Your task to perform on an android device: Search for a new nail polish Image 0: 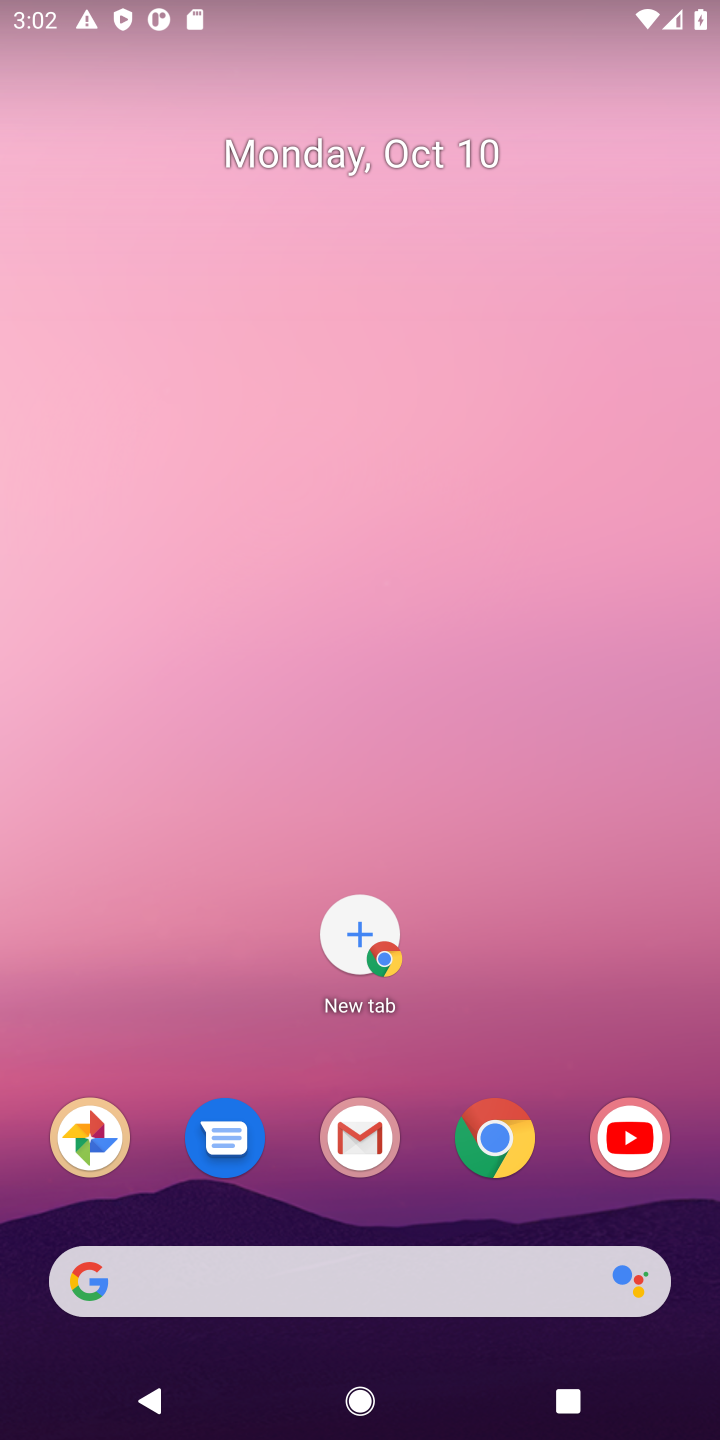
Step 0: click (498, 1157)
Your task to perform on an android device: Search for a new nail polish Image 1: 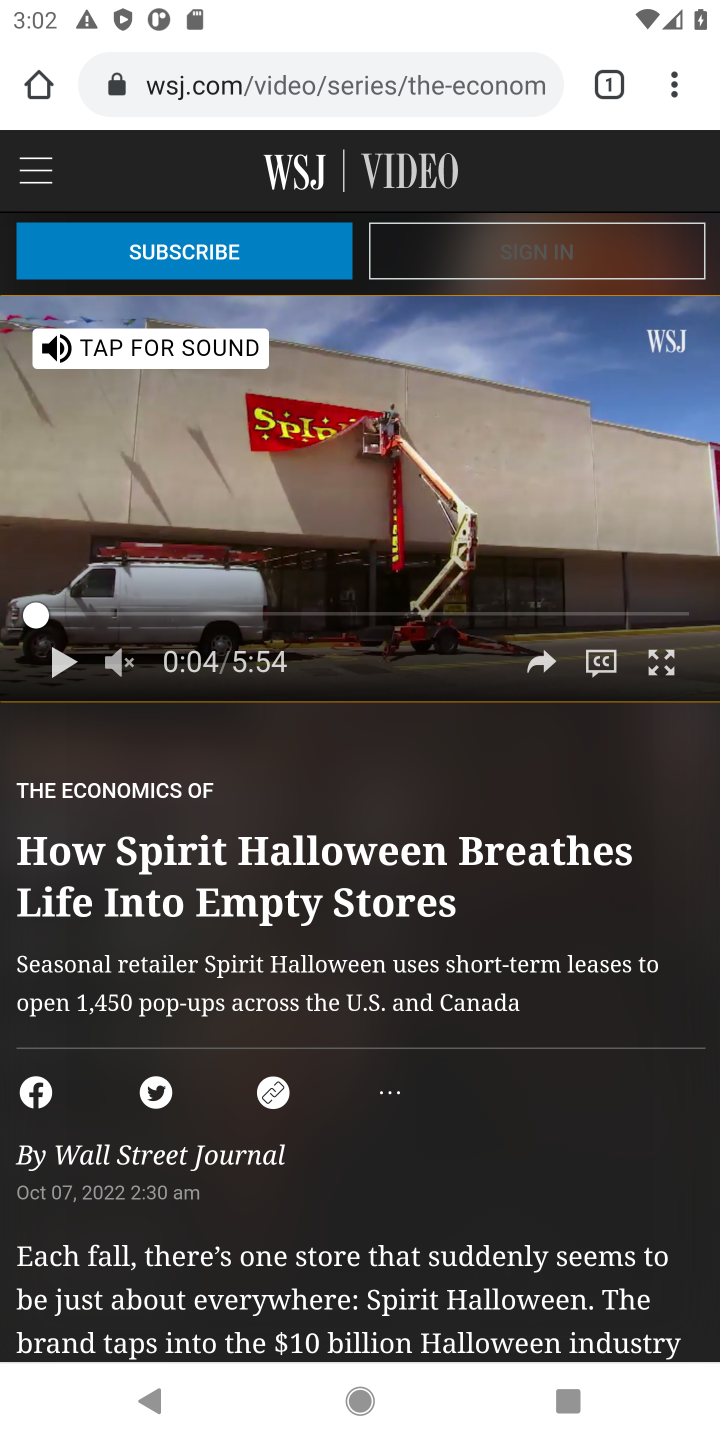
Step 1: click (605, 95)
Your task to perform on an android device: Search for a new nail polish Image 2: 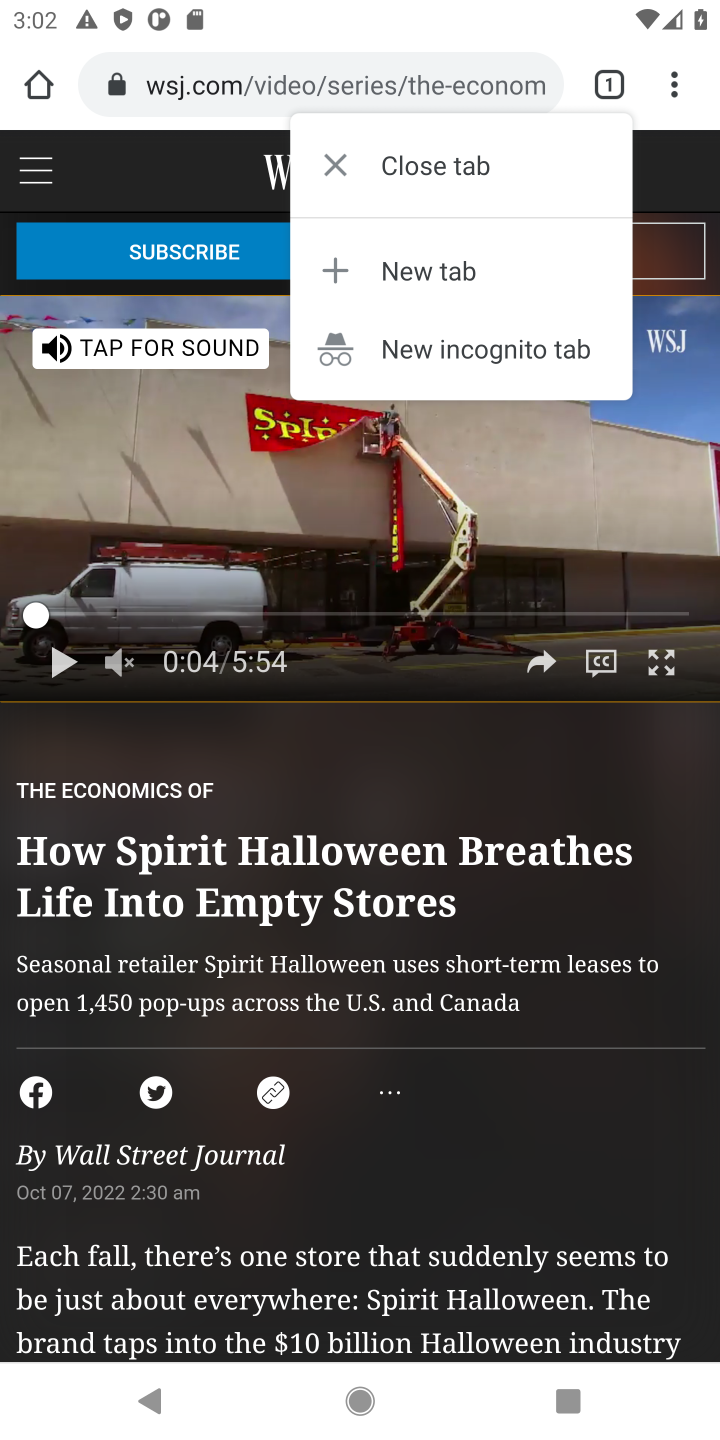
Step 2: click (463, 165)
Your task to perform on an android device: Search for a new nail polish Image 3: 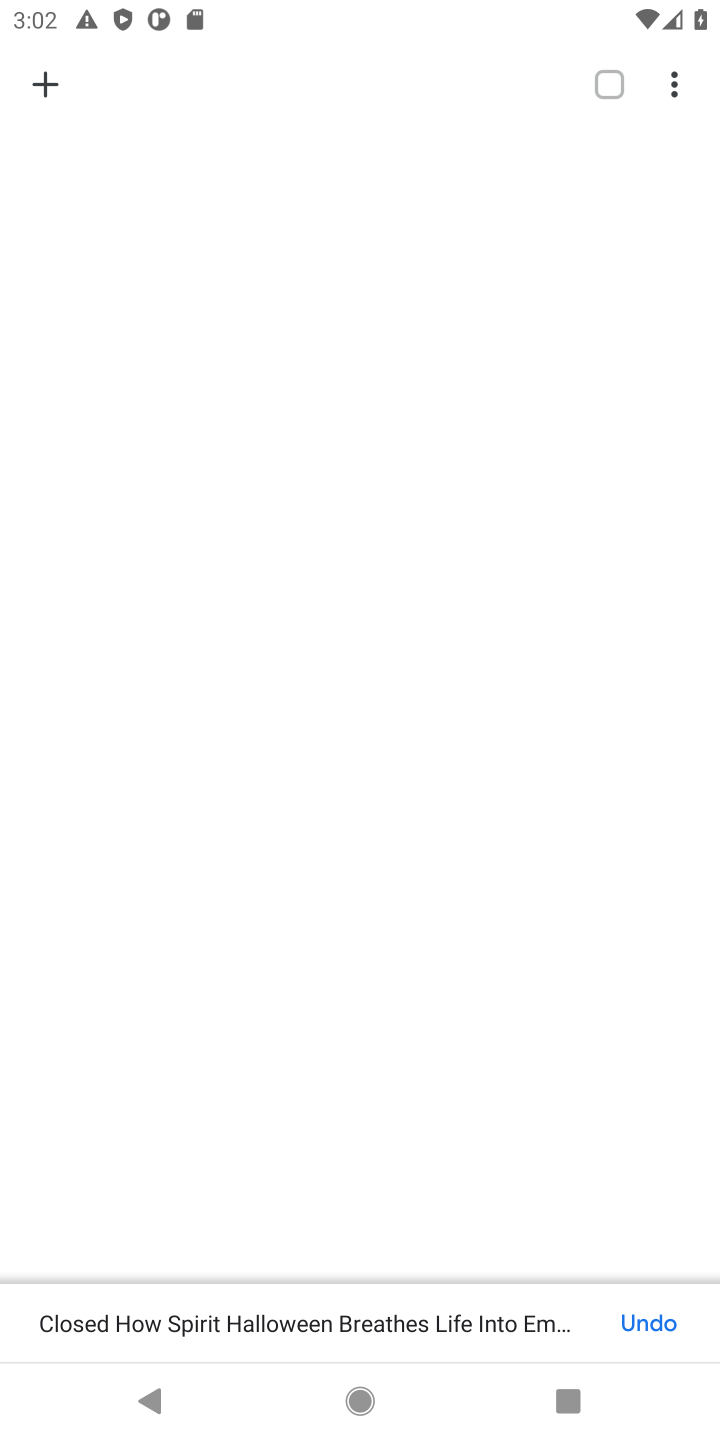
Step 3: click (37, 81)
Your task to perform on an android device: Search for a new nail polish Image 4: 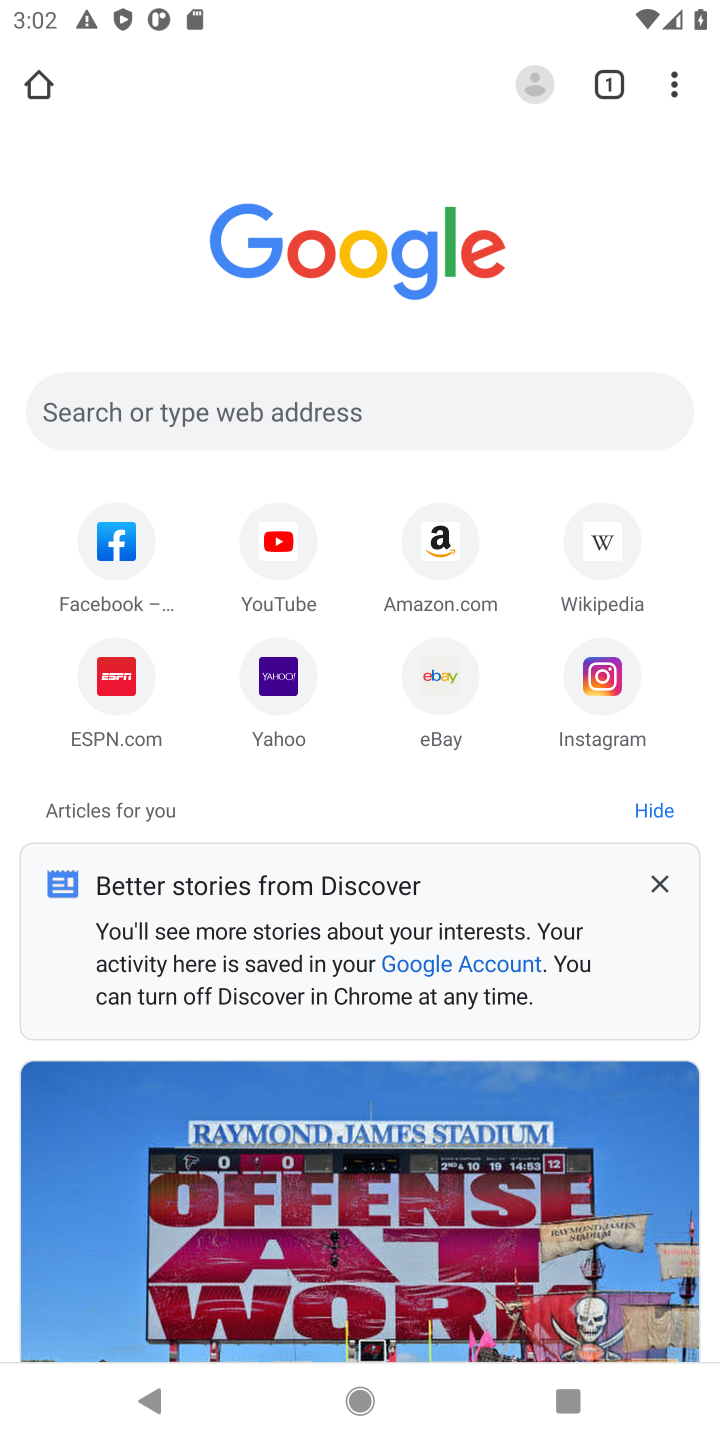
Step 4: click (369, 414)
Your task to perform on an android device: Search for a new nail polish Image 5: 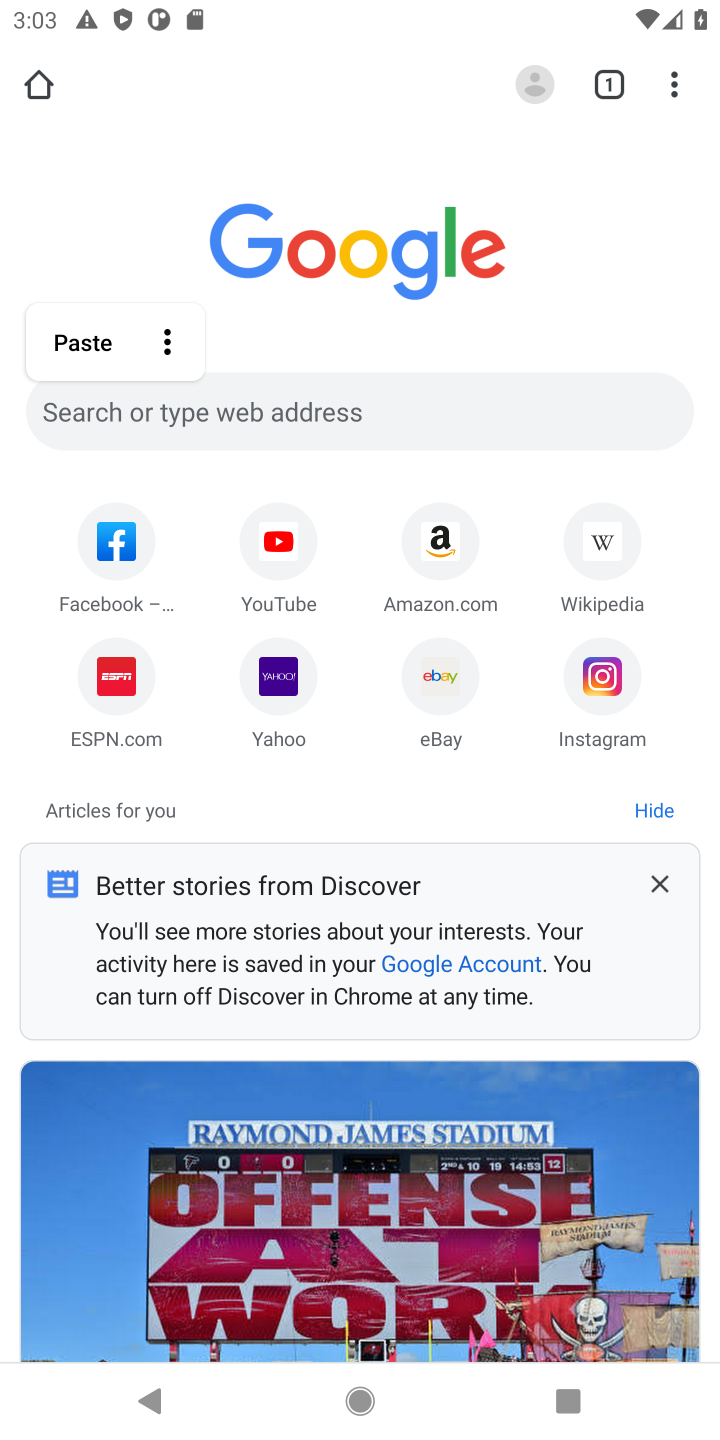
Step 5: type "new nail polish"
Your task to perform on an android device: Search for a new nail polish Image 6: 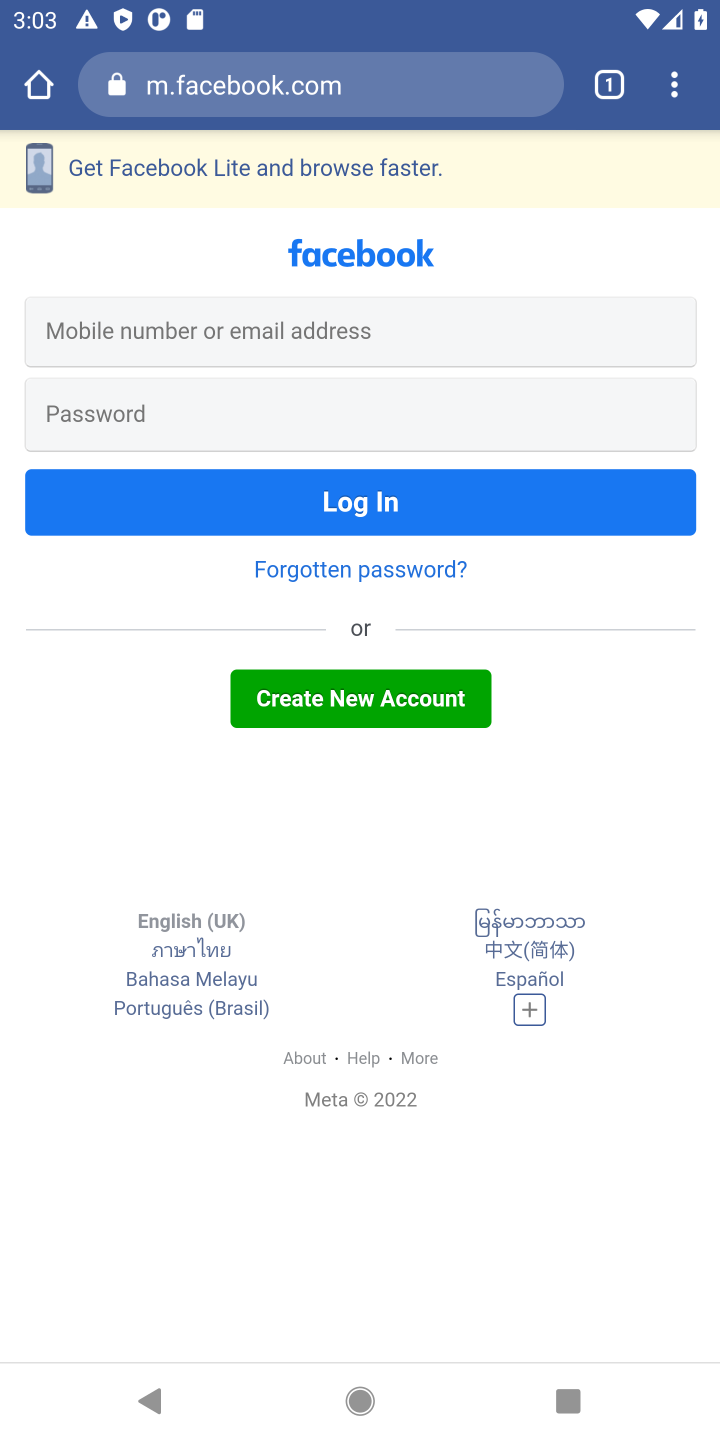
Step 6: type ""
Your task to perform on an android device: Search for a new nail polish Image 7: 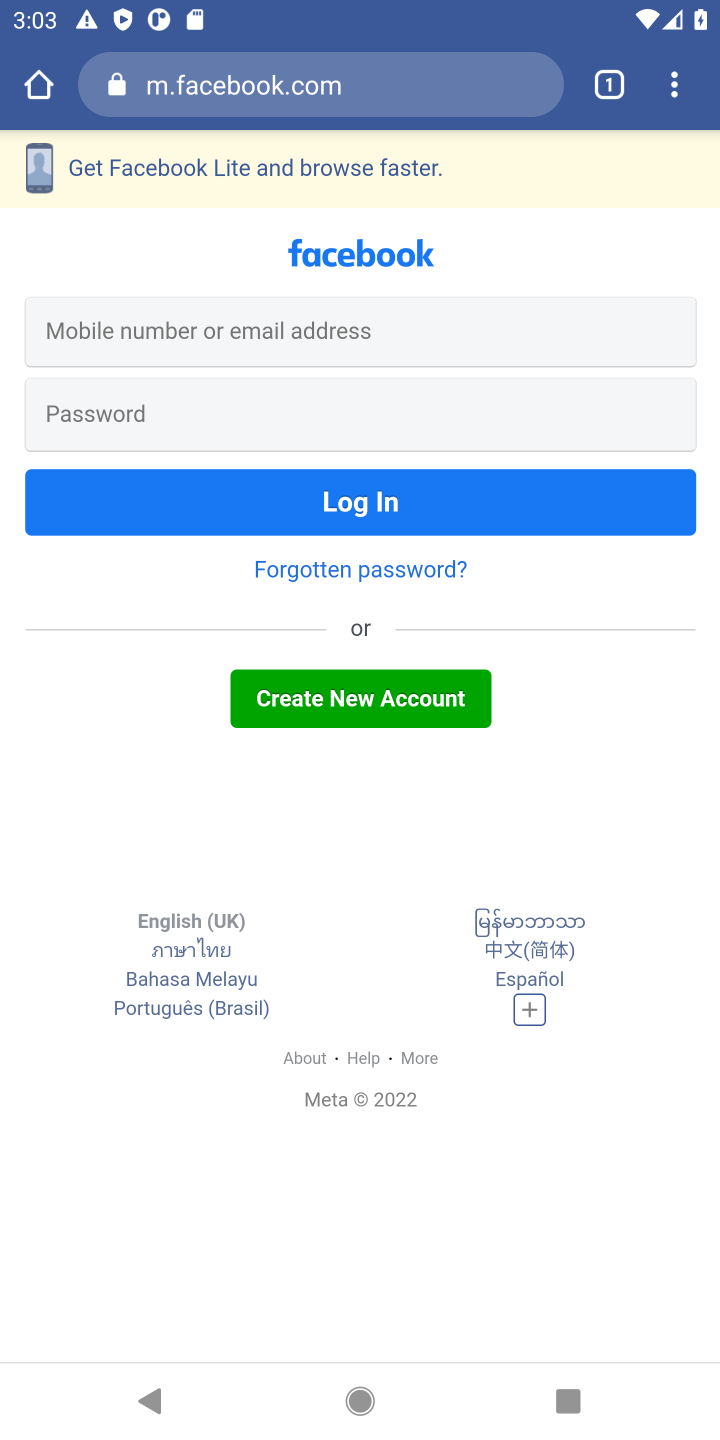
Step 7: click (345, 63)
Your task to perform on an android device: Search for a new nail polish Image 8: 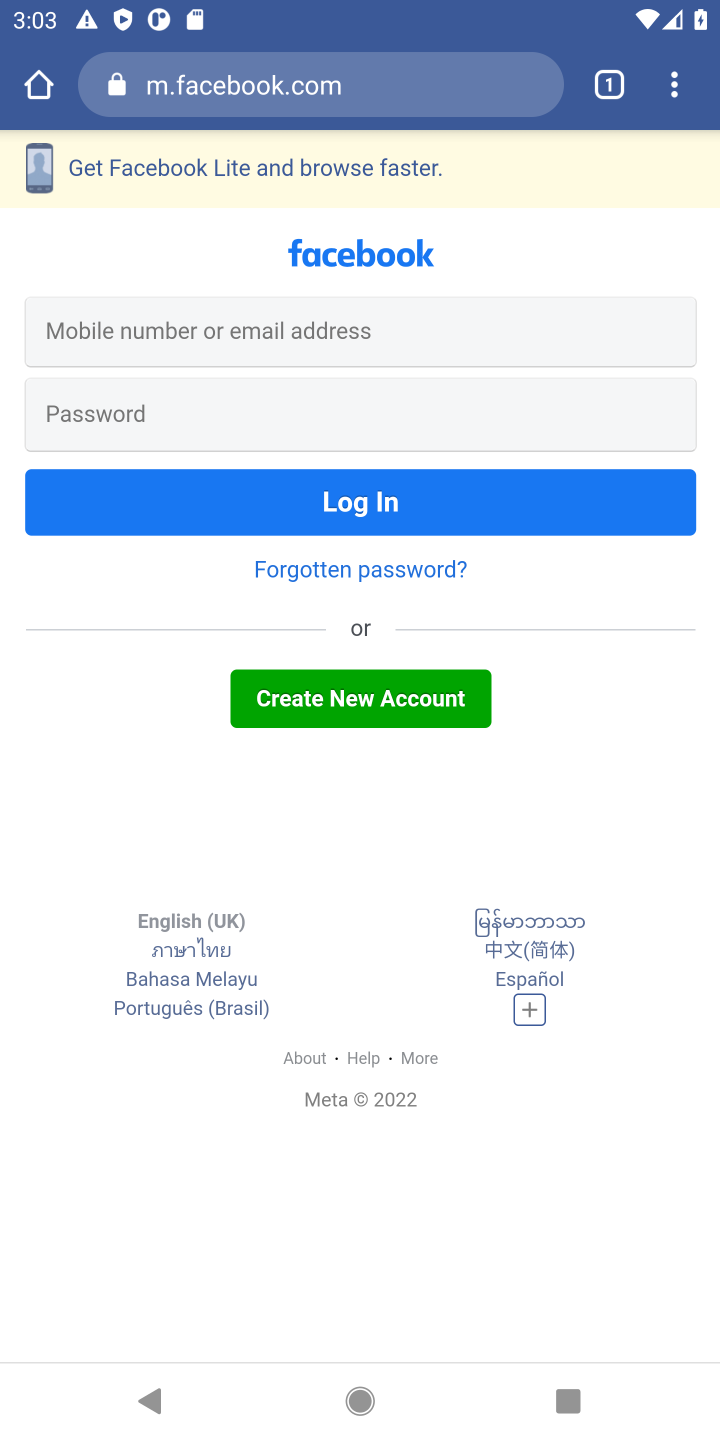
Step 8: click (345, 82)
Your task to perform on an android device: Search for a new nail polish Image 9: 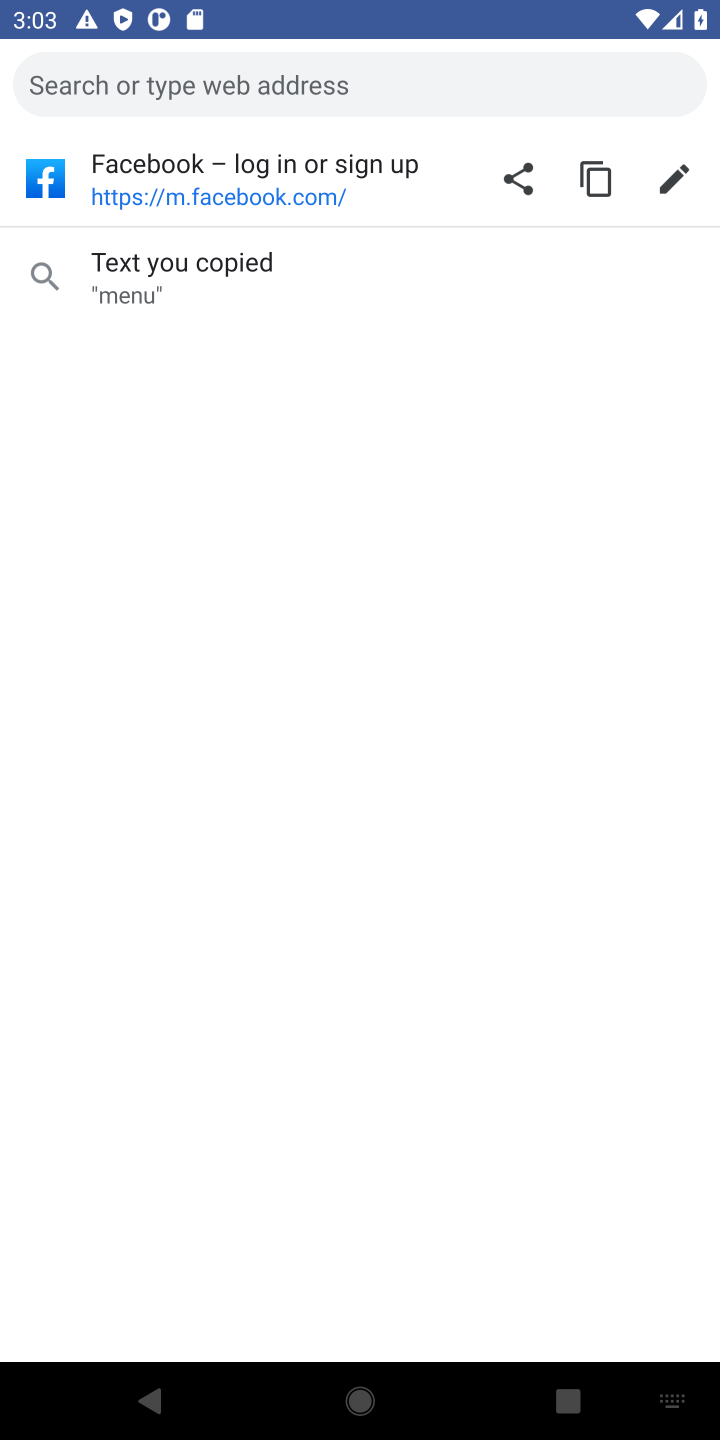
Step 9: type "new nail polish"
Your task to perform on an android device: Search for a new nail polish Image 10: 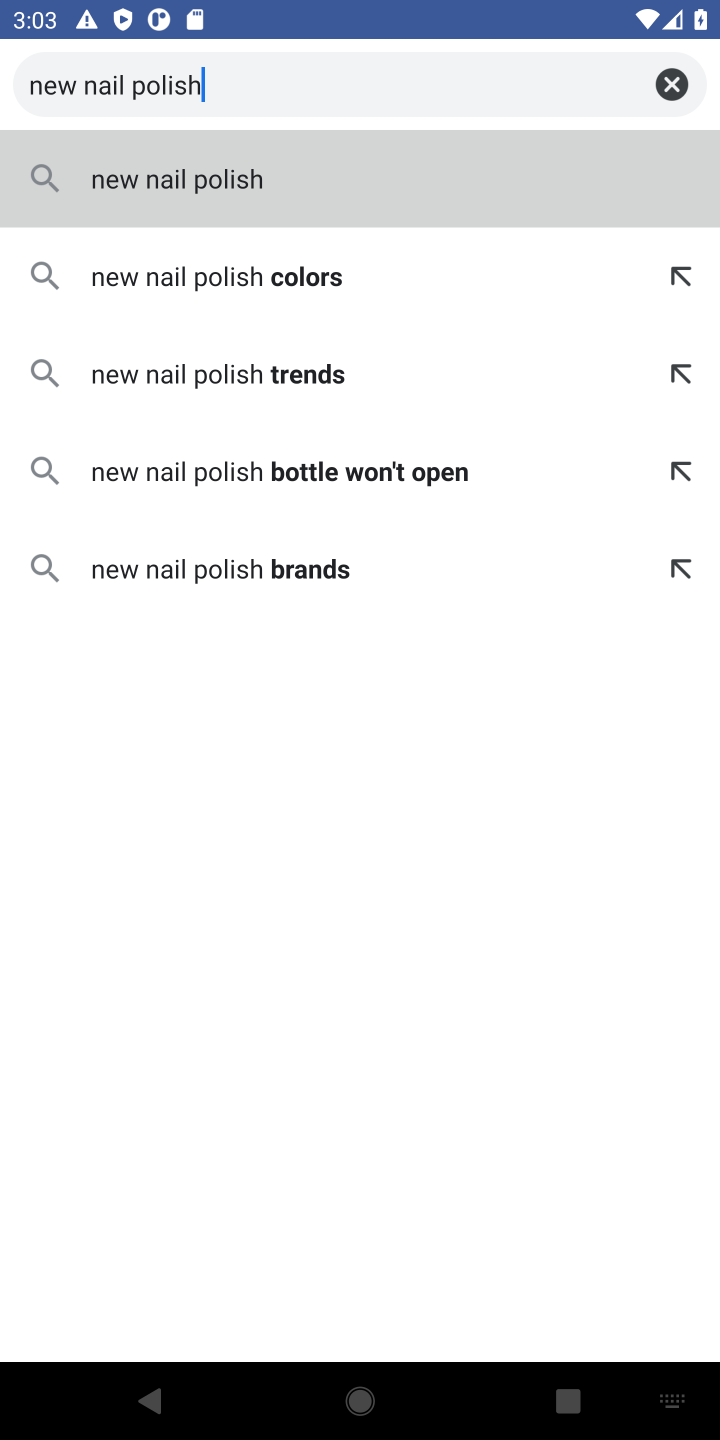
Step 10: type ""
Your task to perform on an android device: Search for a new nail polish Image 11: 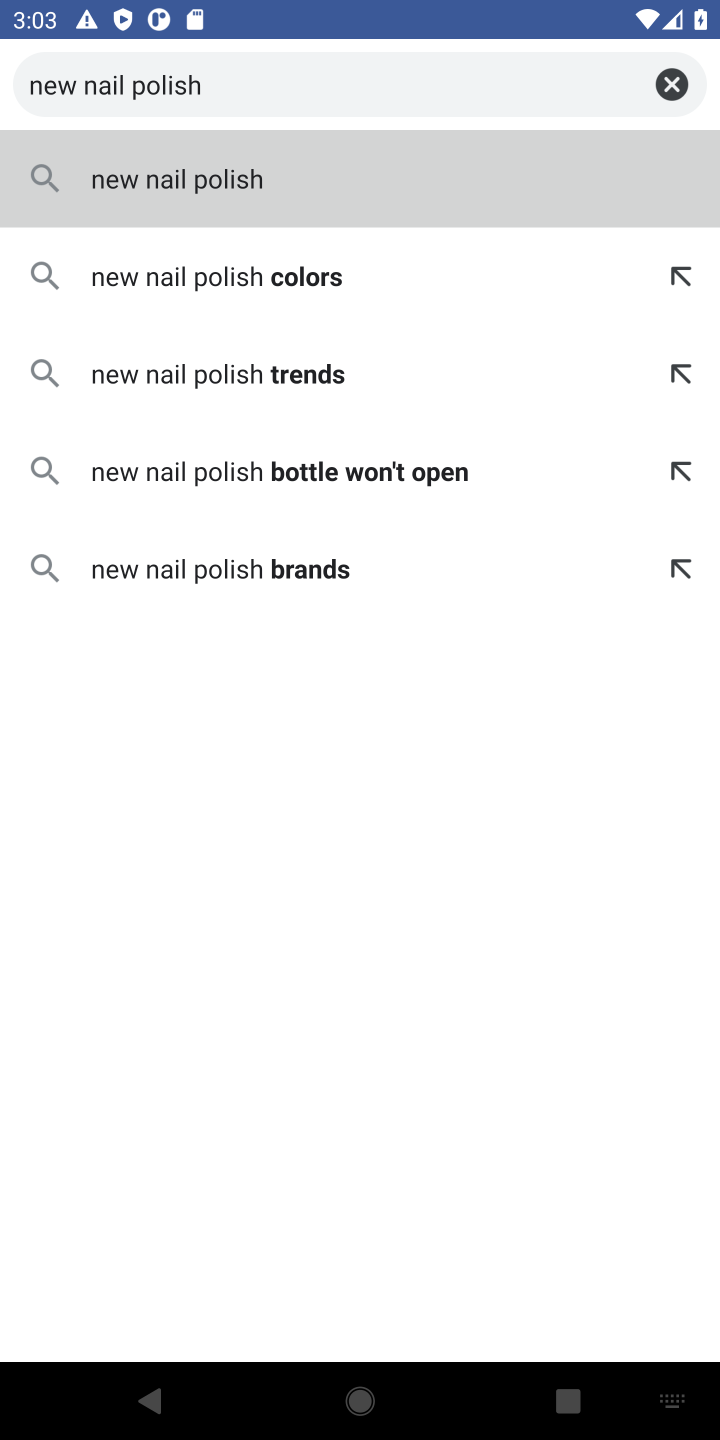
Step 11: press enter
Your task to perform on an android device: Search for a new nail polish Image 12: 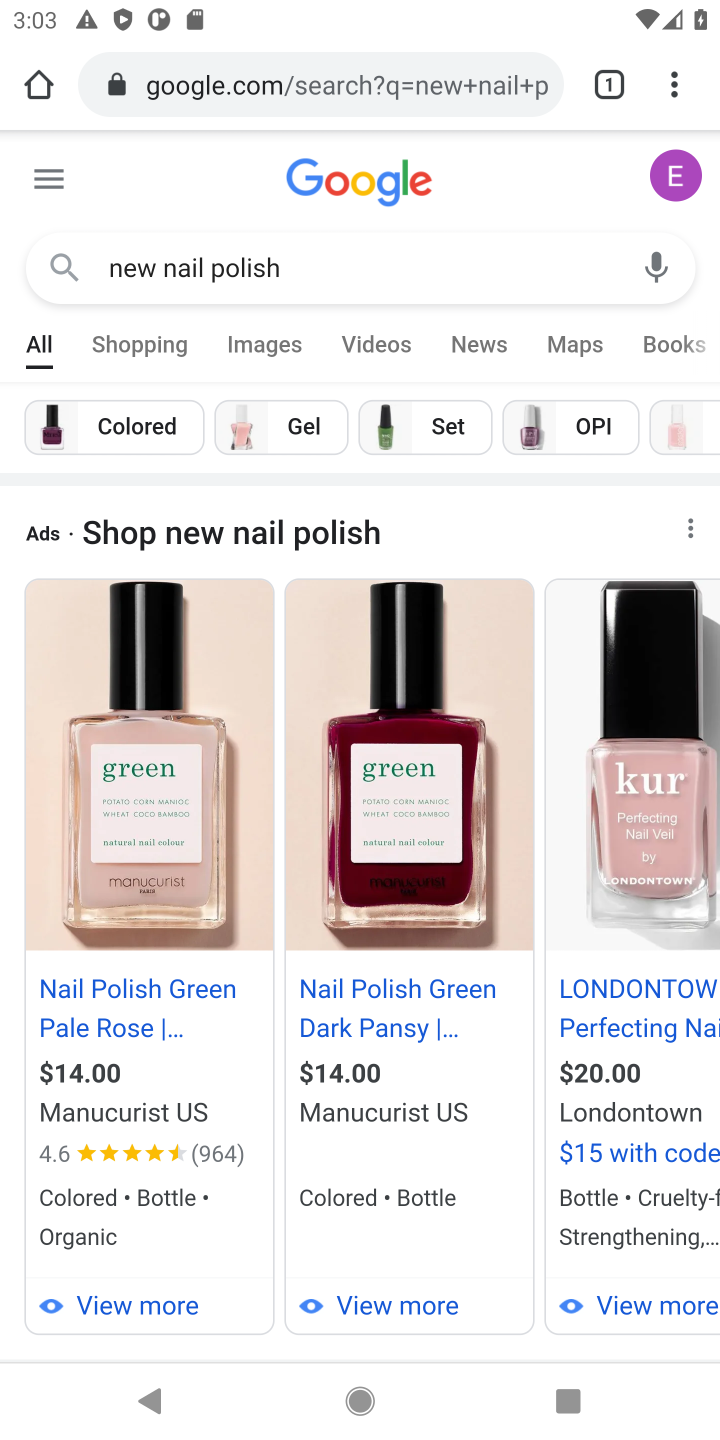
Step 12: task complete